Your task to perform on an android device: delete a single message in the gmail app Image 0: 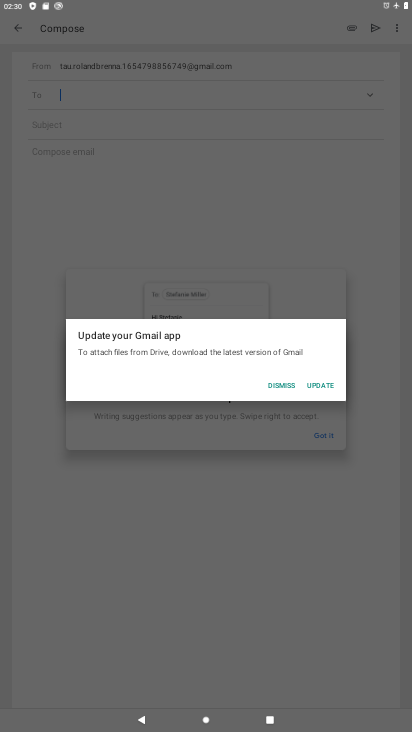
Step 0: press home button
Your task to perform on an android device: delete a single message in the gmail app Image 1: 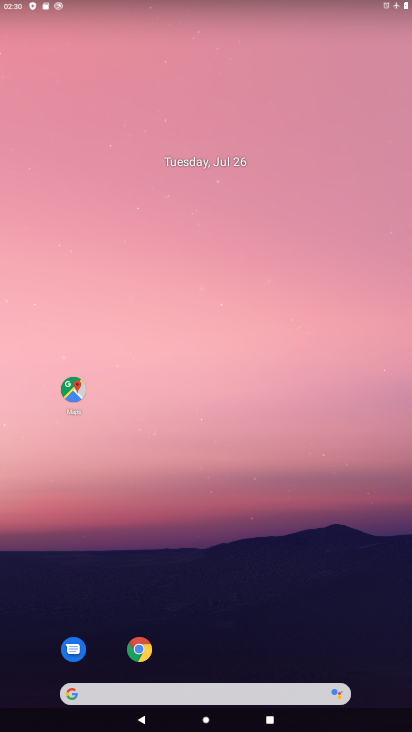
Step 1: drag from (212, 692) to (411, 62)
Your task to perform on an android device: delete a single message in the gmail app Image 2: 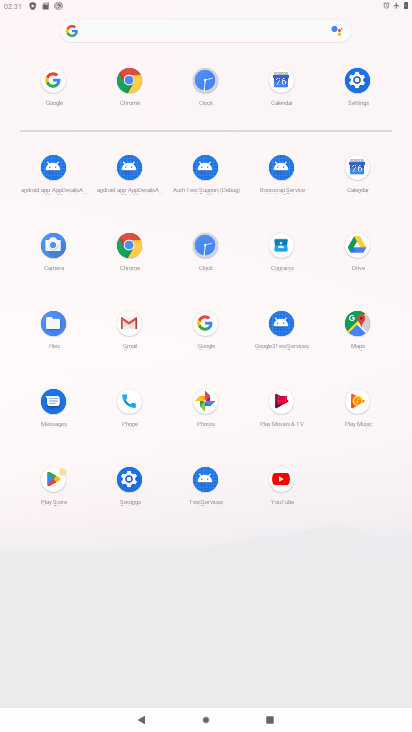
Step 2: click (127, 320)
Your task to perform on an android device: delete a single message in the gmail app Image 3: 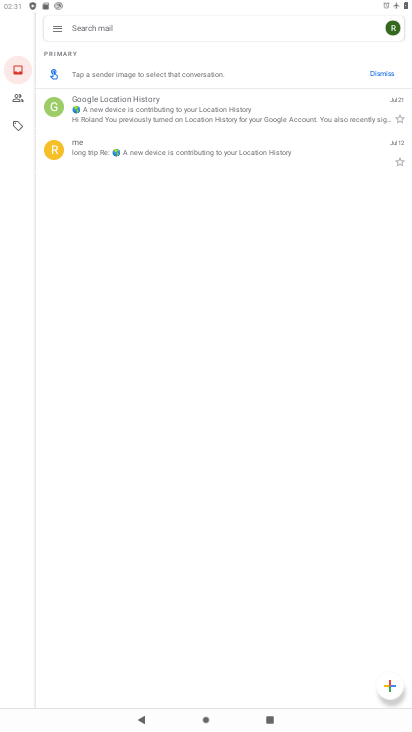
Step 3: click (364, 121)
Your task to perform on an android device: delete a single message in the gmail app Image 4: 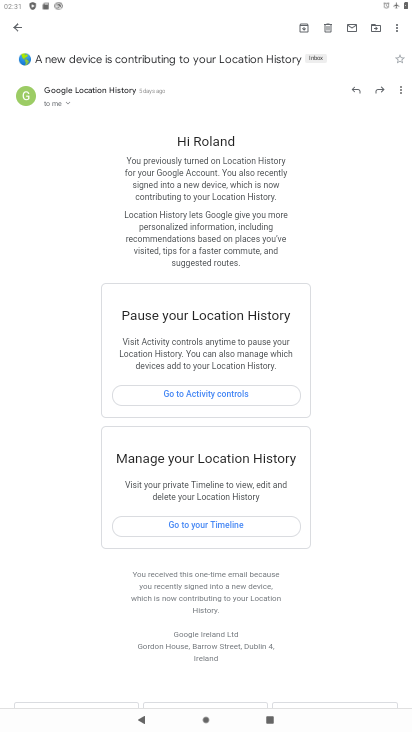
Step 4: click (328, 30)
Your task to perform on an android device: delete a single message in the gmail app Image 5: 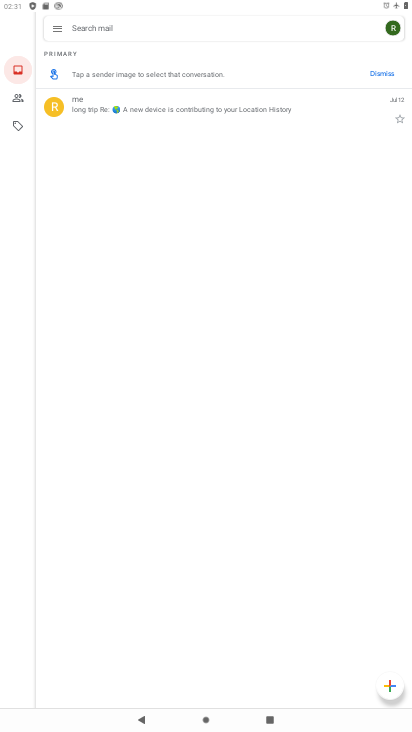
Step 5: task complete